Your task to perform on an android device: toggle location history Image 0: 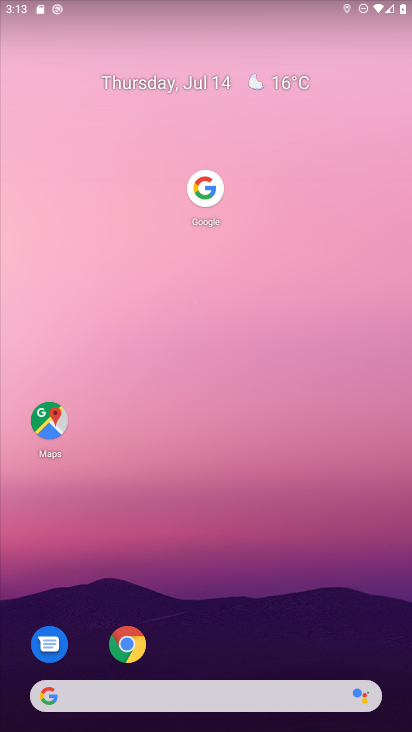
Step 0: drag from (210, 657) to (226, 211)
Your task to perform on an android device: toggle location history Image 1: 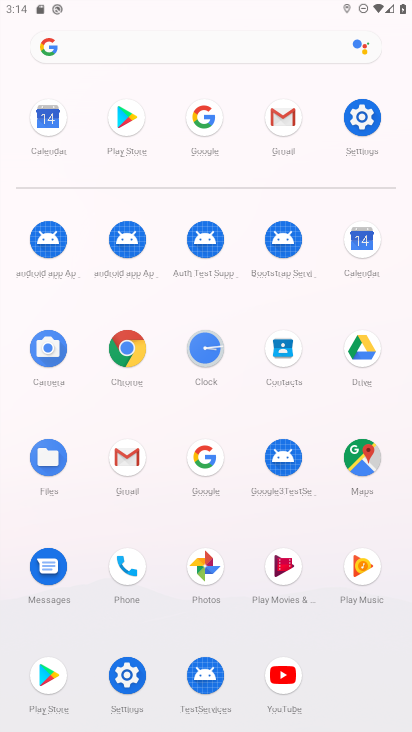
Step 1: click (346, 107)
Your task to perform on an android device: toggle location history Image 2: 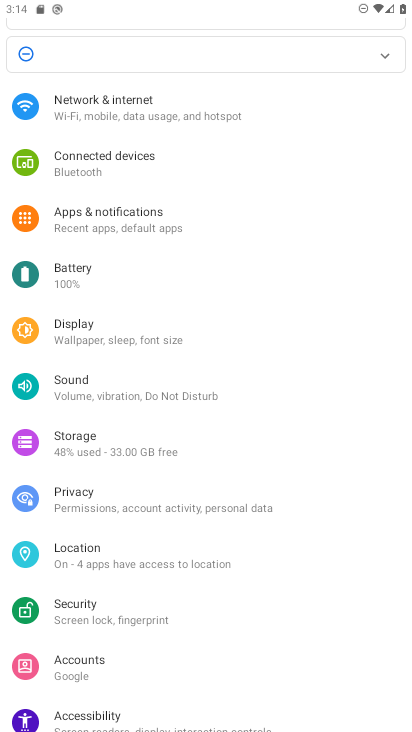
Step 2: click (129, 562)
Your task to perform on an android device: toggle location history Image 3: 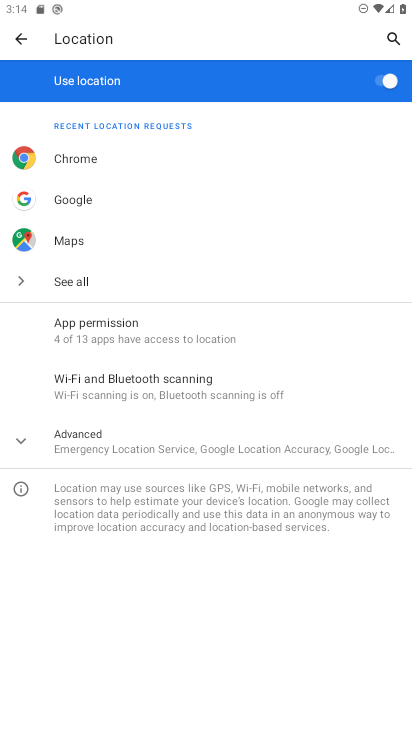
Step 3: click (137, 453)
Your task to perform on an android device: toggle location history Image 4: 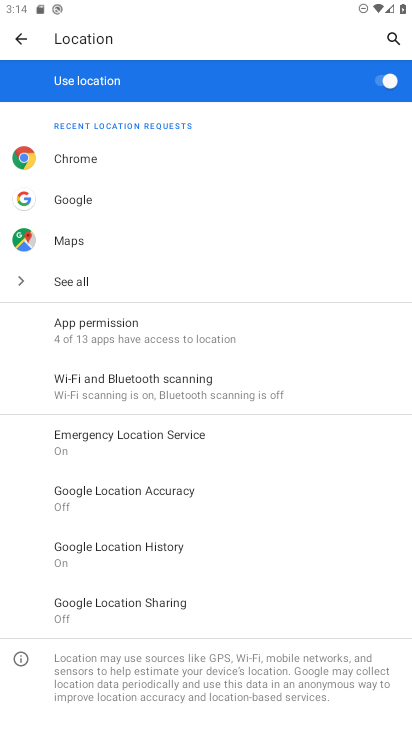
Step 4: click (165, 563)
Your task to perform on an android device: toggle location history Image 5: 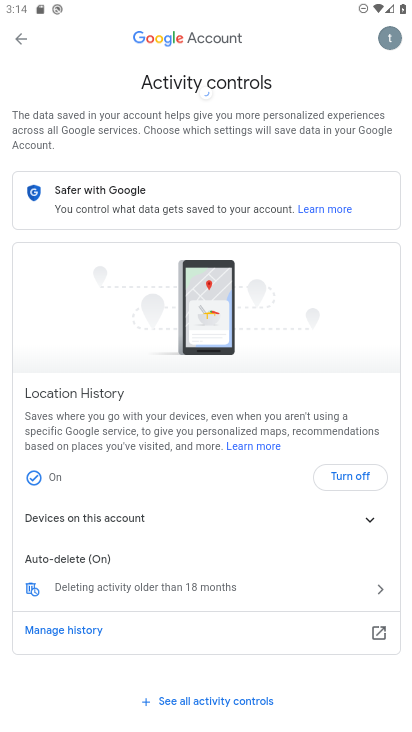
Step 5: click (352, 471)
Your task to perform on an android device: toggle location history Image 6: 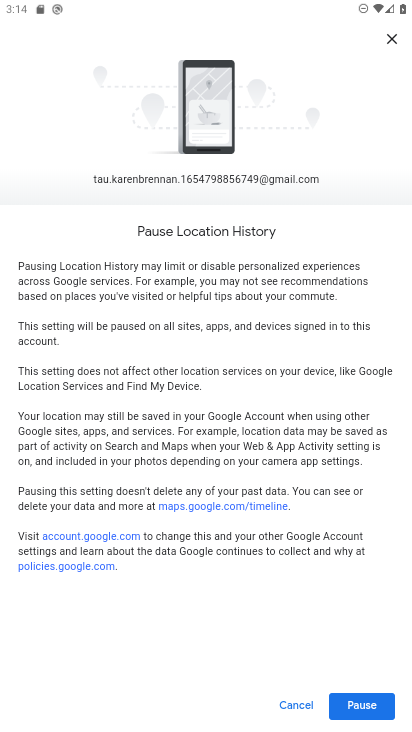
Step 6: click (377, 706)
Your task to perform on an android device: toggle location history Image 7: 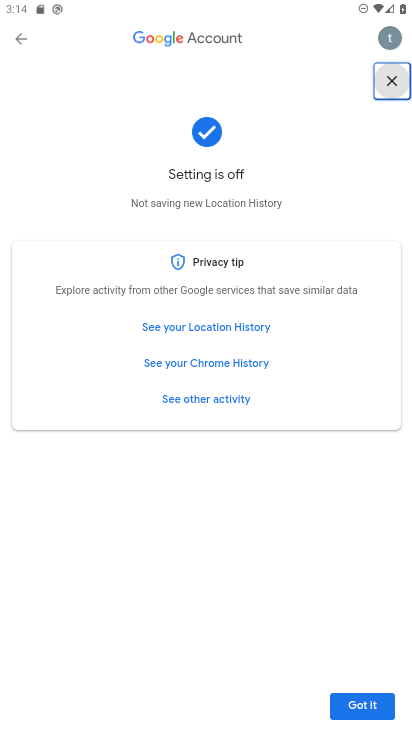
Step 7: task complete